Your task to perform on an android device: toggle notifications settings in the gmail app Image 0: 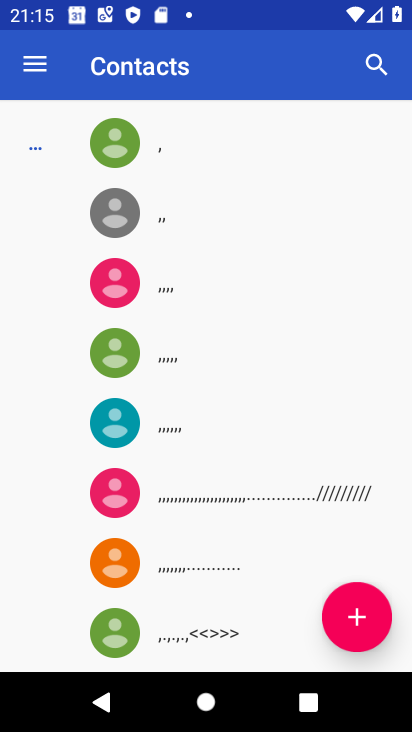
Step 0: press home button
Your task to perform on an android device: toggle notifications settings in the gmail app Image 1: 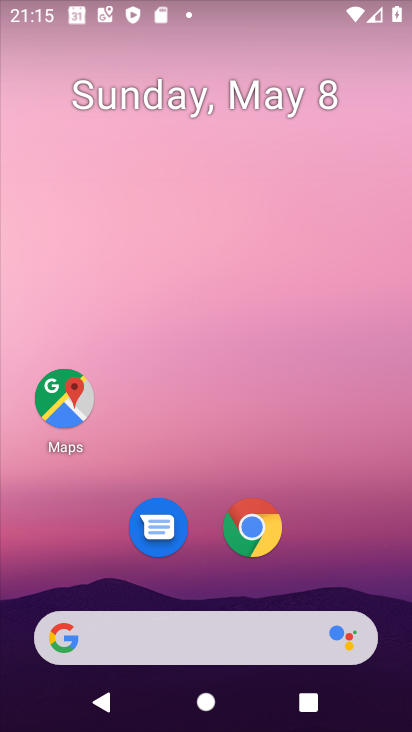
Step 1: drag from (218, 562) to (224, 74)
Your task to perform on an android device: toggle notifications settings in the gmail app Image 2: 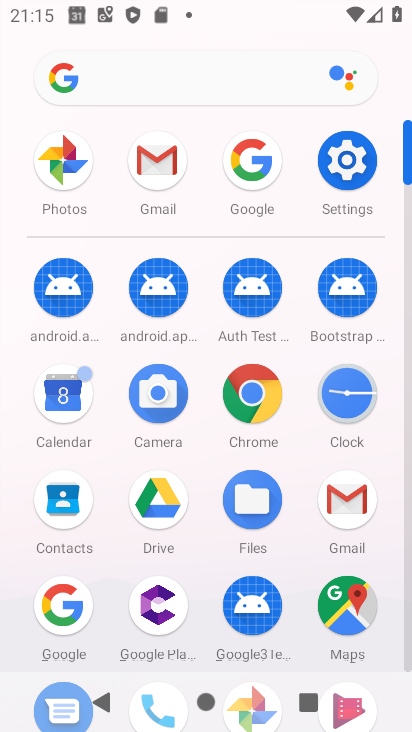
Step 2: click (160, 154)
Your task to perform on an android device: toggle notifications settings in the gmail app Image 3: 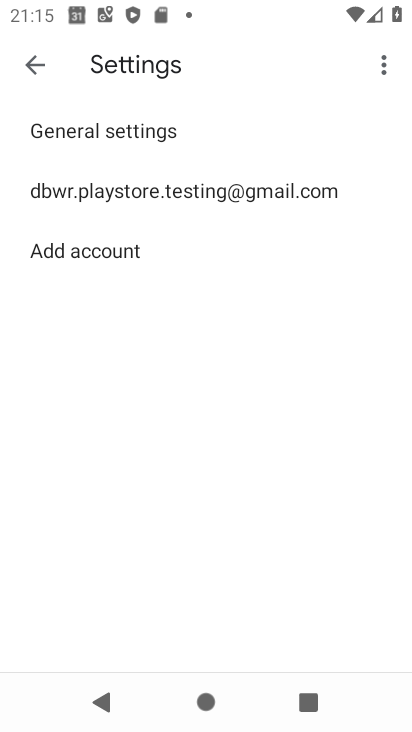
Step 3: click (169, 199)
Your task to perform on an android device: toggle notifications settings in the gmail app Image 4: 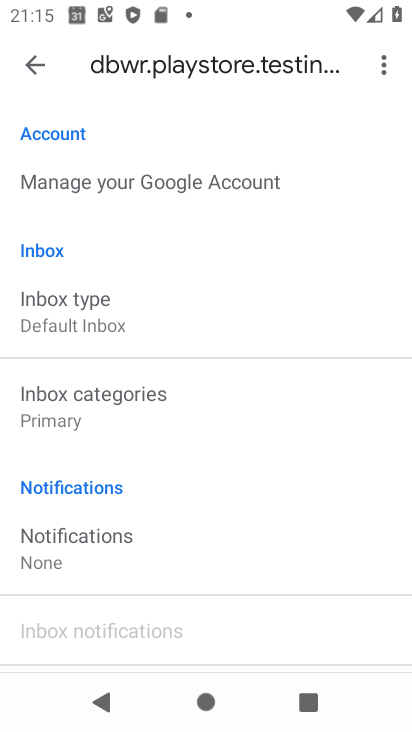
Step 4: drag from (149, 480) to (179, 194)
Your task to perform on an android device: toggle notifications settings in the gmail app Image 5: 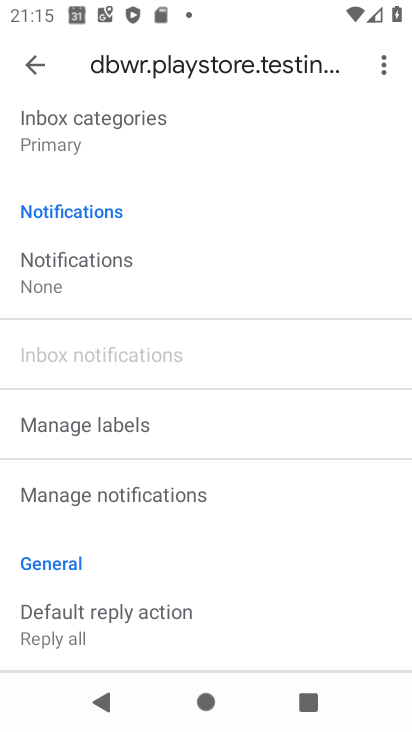
Step 5: click (97, 277)
Your task to perform on an android device: toggle notifications settings in the gmail app Image 6: 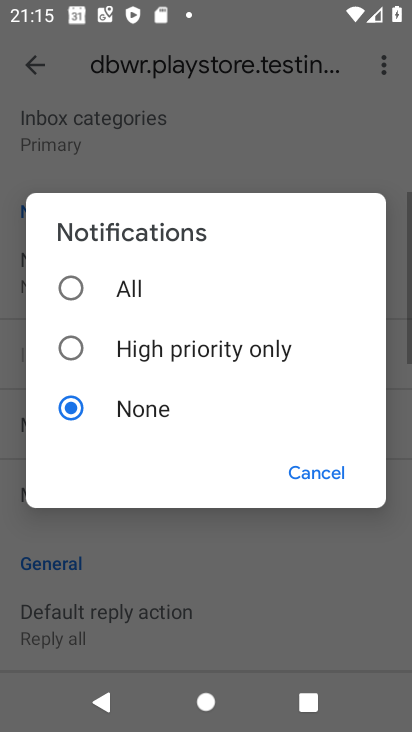
Step 6: click (79, 288)
Your task to perform on an android device: toggle notifications settings in the gmail app Image 7: 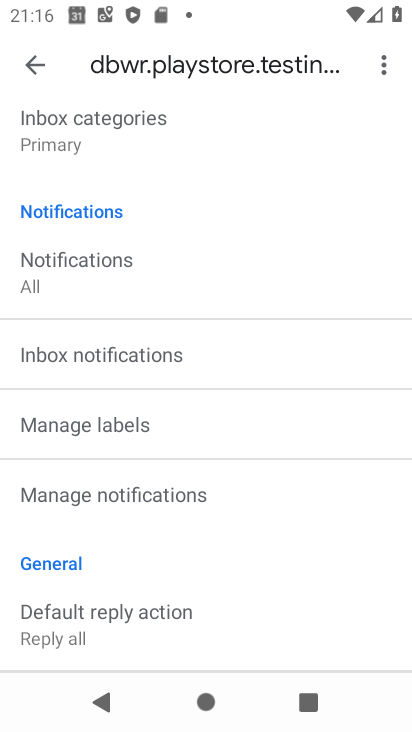
Step 7: task complete